Your task to perform on an android device: Search for Italian restaurants on Maps Image 0: 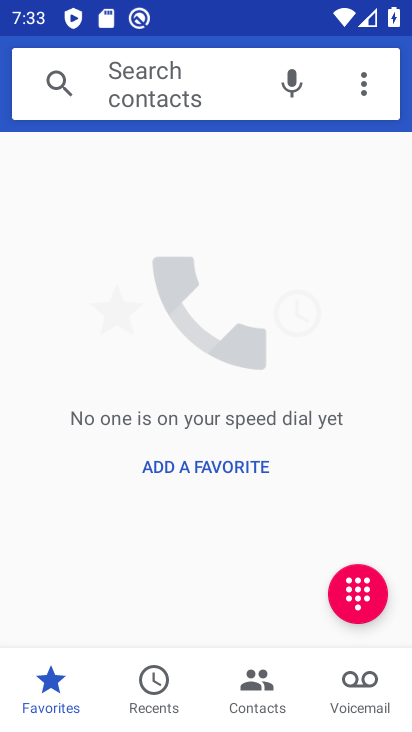
Step 0: press home button
Your task to perform on an android device: Search for Italian restaurants on Maps Image 1: 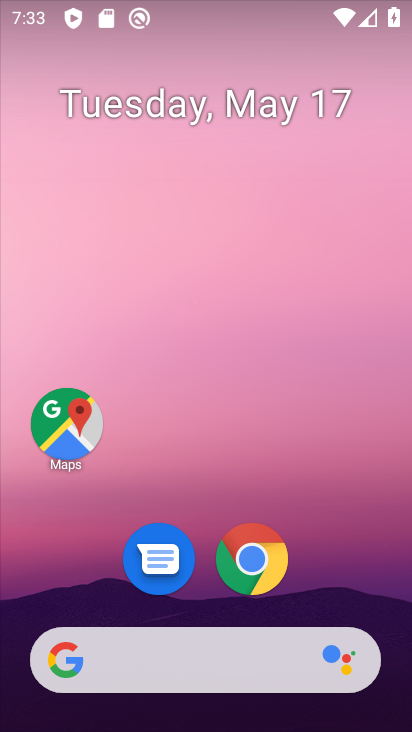
Step 1: click (82, 442)
Your task to perform on an android device: Search for Italian restaurants on Maps Image 2: 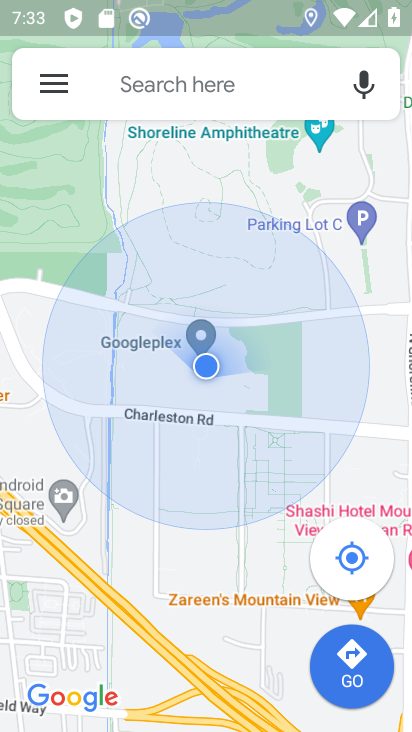
Step 2: click (141, 91)
Your task to perform on an android device: Search for Italian restaurants on Maps Image 3: 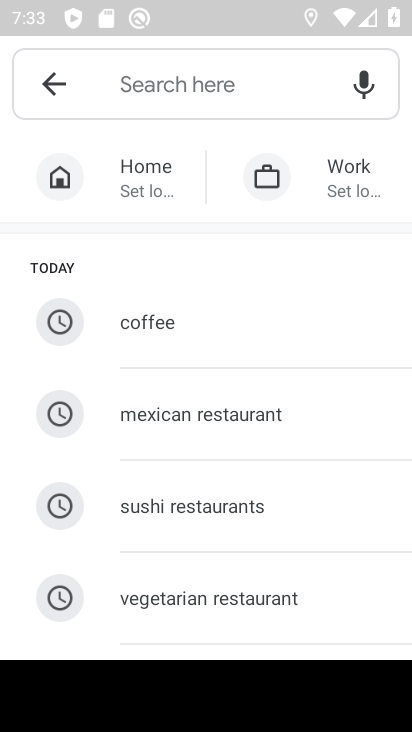
Step 3: drag from (289, 560) to (235, 4)
Your task to perform on an android device: Search for Italian restaurants on Maps Image 4: 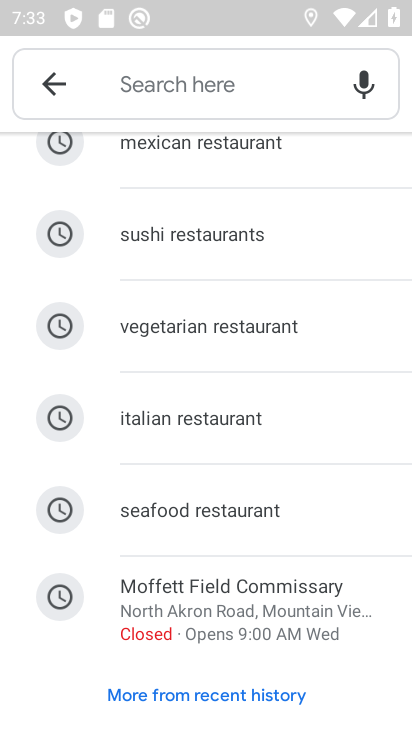
Step 4: click (197, 412)
Your task to perform on an android device: Search for Italian restaurants on Maps Image 5: 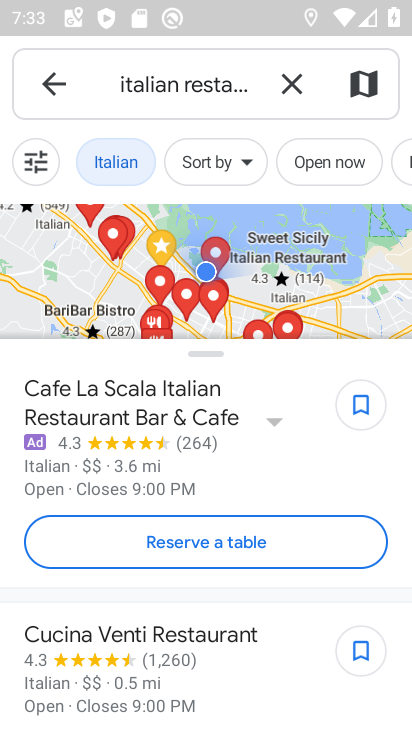
Step 5: task complete